Your task to perform on an android device: read, delete, or share a saved page in the chrome app Image 0: 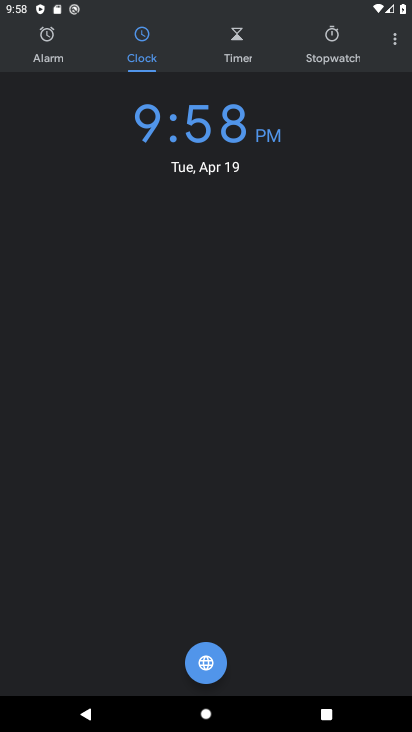
Step 0: press home button
Your task to perform on an android device: read, delete, or share a saved page in the chrome app Image 1: 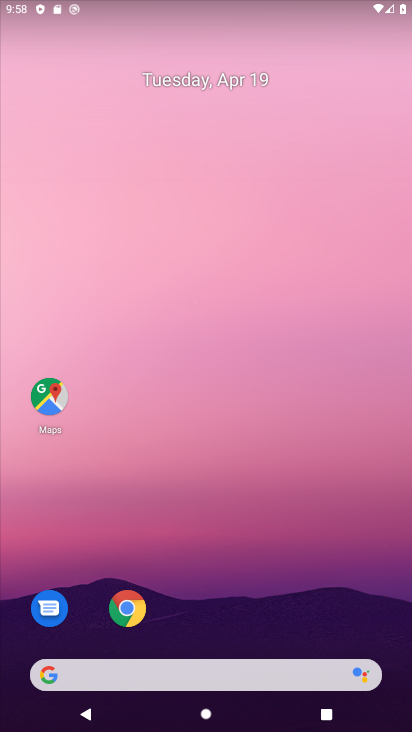
Step 1: click (125, 609)
Your task to perform on an android device: read, delete, or share a saved page in the chrome app Image 2: 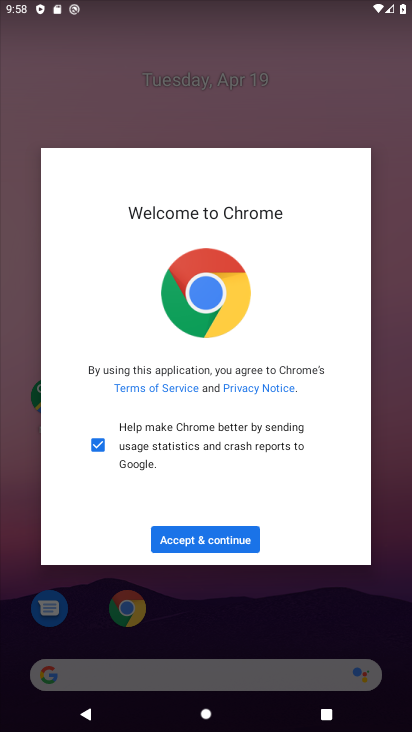
Step 2: click (234, 544)
Your task to perform on an android device: read, delete, or share a saved page in the chrome app Image 3: 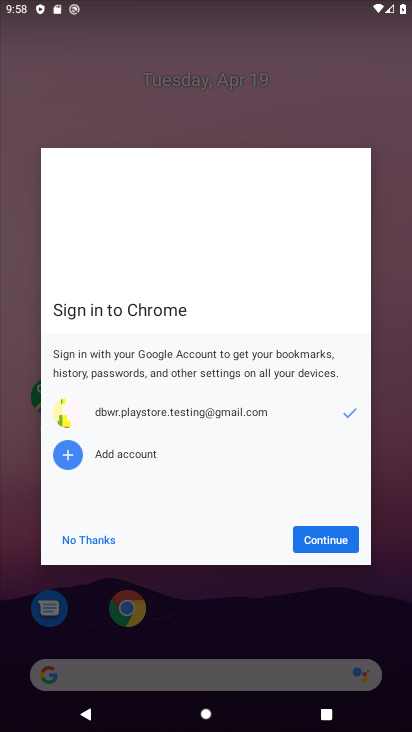
Step 3: click (306, 532)
Your task to perform on an android device: read, delete, or share a saved page in the chrome app Image 4: 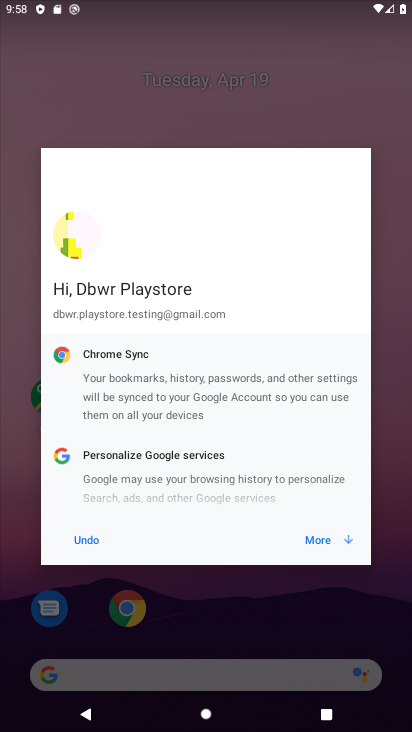
Step 4: click (319, 538)
Your task to perform on an android device: read, delete, or share a saved page in the chrome app Image 5: 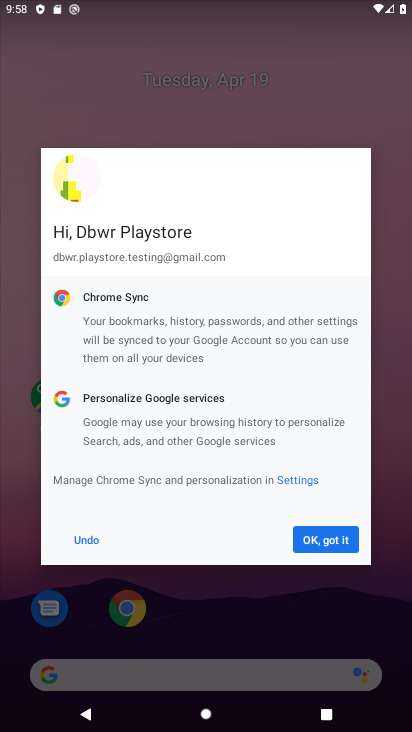
Step 5: click (319, 538)
Your task to perform on an android device: read, delete, or share a saved page in the chrome app Image 6: 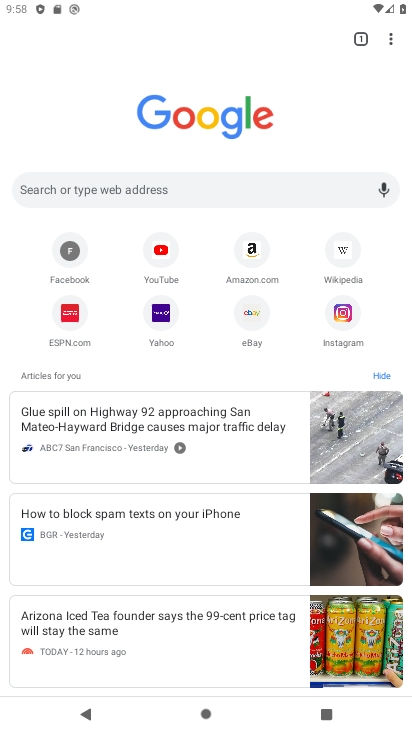
Step 6: click (387, 39)
Your task to perform on an android device: read, delete, or share a saved page in the chrome app Image 7: 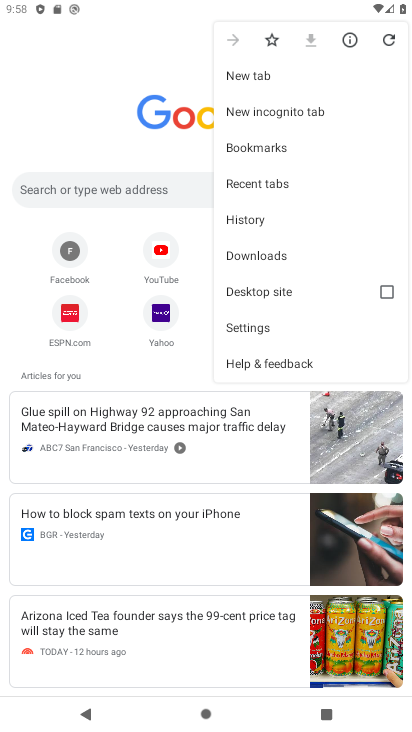
Step 7: click (271, 257)
Your task to perform on an android device: read, delete, or share a saved page in the chrome app Image 8: 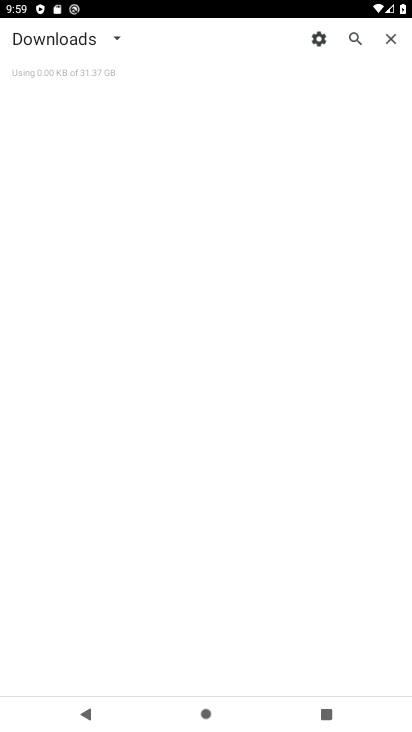
Step 8: task complete